Your task to perform on an android device: find snoozed emails in the gmail app Image 0: 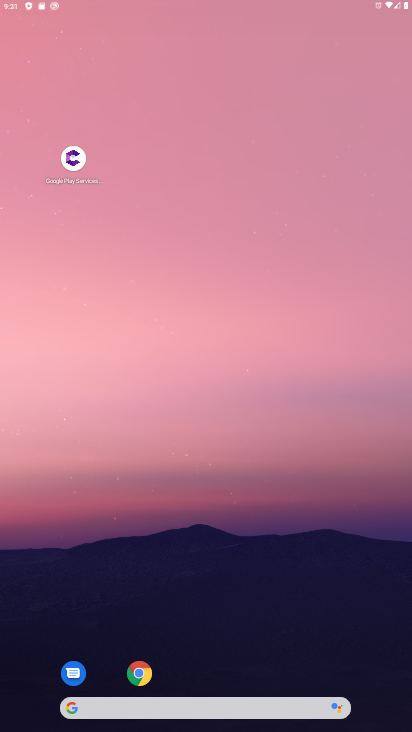
Step 0: drag from (229, 677) to (151, 85)
Your task to perform on an android device: find snoozed emails in the gmail app Image 1: 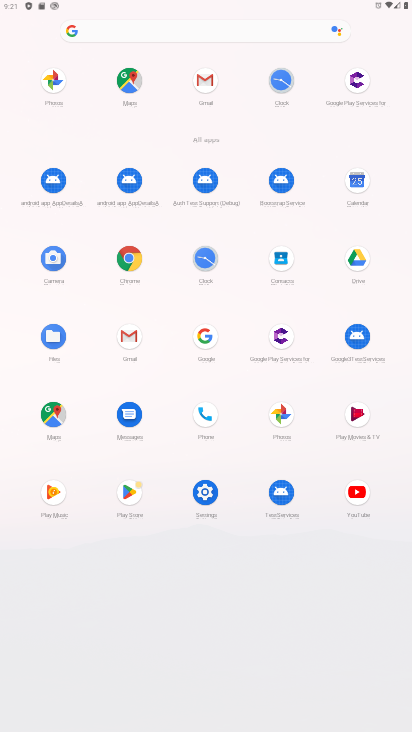
Step 1: click (122, 322)
Your task to perform on an android device: find snoozed emails in the gmail app Image 2: 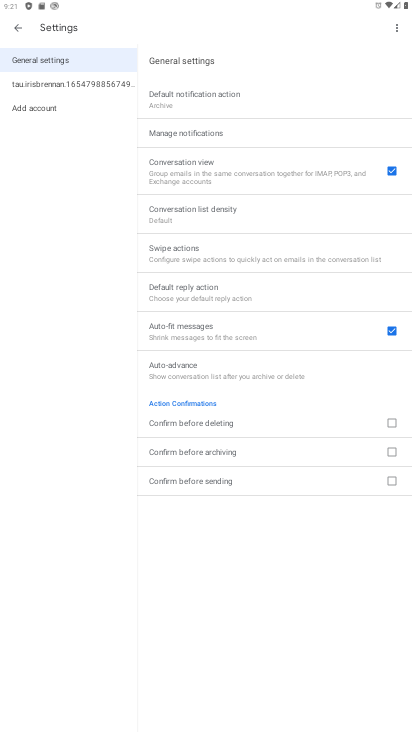
Step 2: click (74, 88)
Your task to perform on an android device: find snoozed emails in the gmail app Image 3: 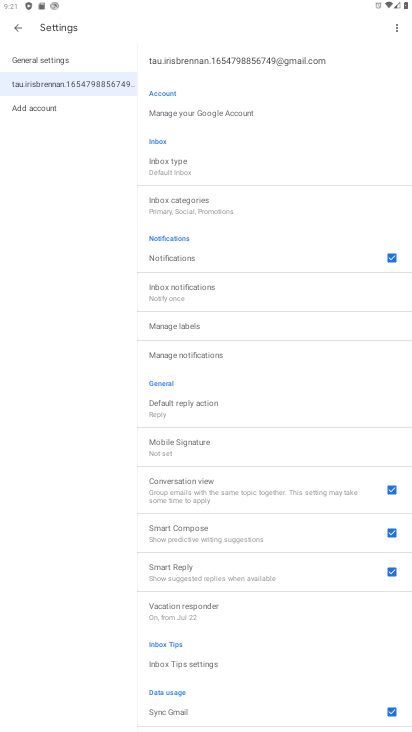
Step 3: click (46, 62)
Your task to perform on an android device: find snoozed emails in the gmail app Image 4: 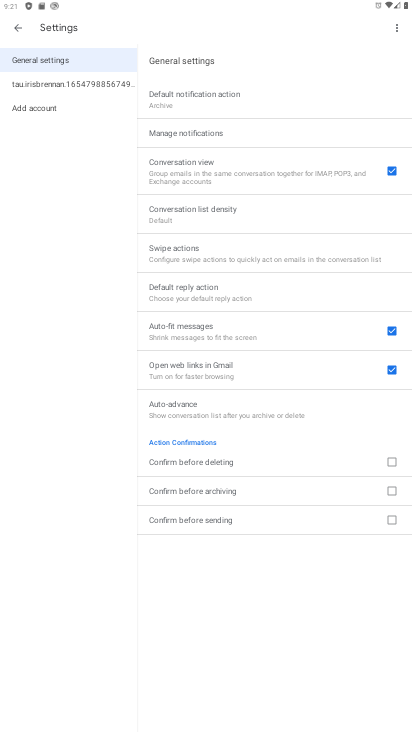
Step 4: click (18, 28)
Your task to perform on an android device: find snoozed emails in the gmail app Image 5: 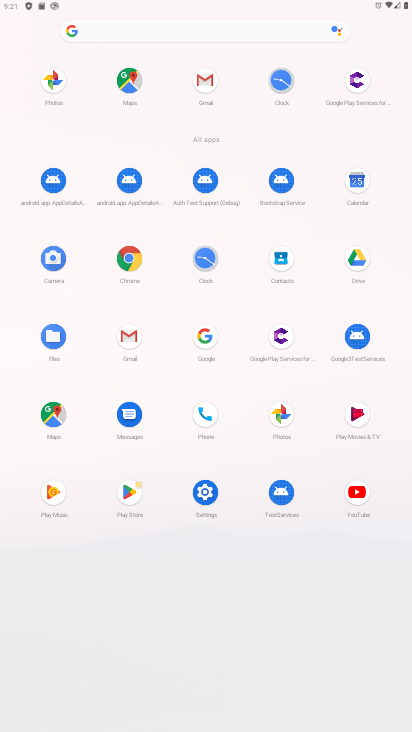
Step 5: click (134, 333)
Your task to perform on an android device: find snoozed emails in the gmail app Image 6: 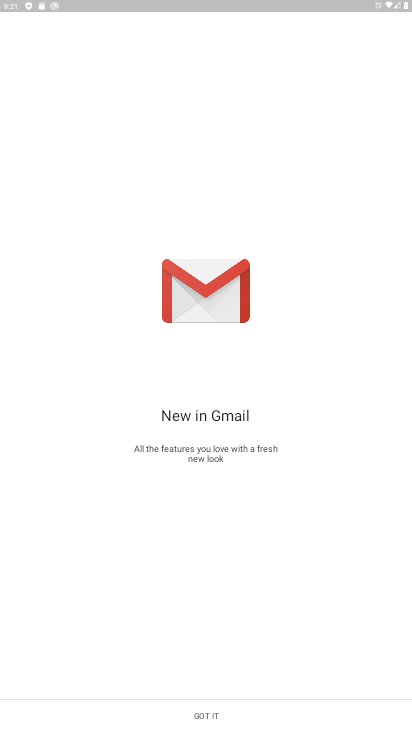
Step 6: click (251, 728)
Your task to perform on an android device: find snoozed emails in the gmail app Image 7: 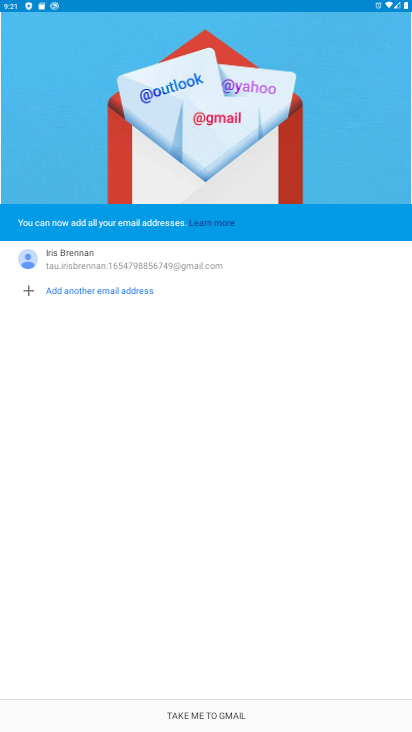
Step 7: click (251, 728)
Your task to perform on an android device: find snoozed emails in the gmail app Image 8: 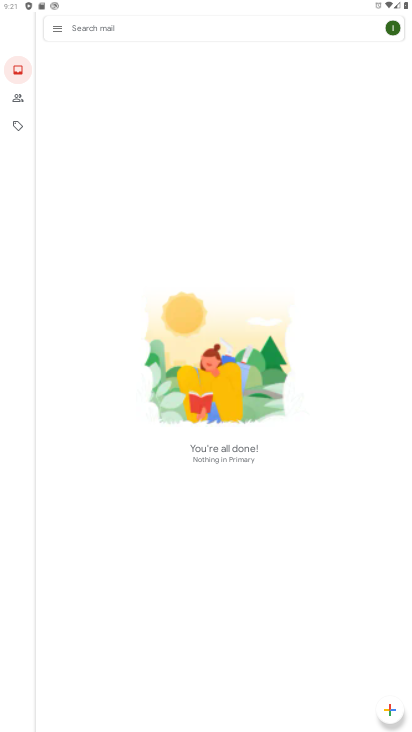
Step 8: task complete